Your task to perform on an android device: Open Youtube and go to "Your channel" Image 0: 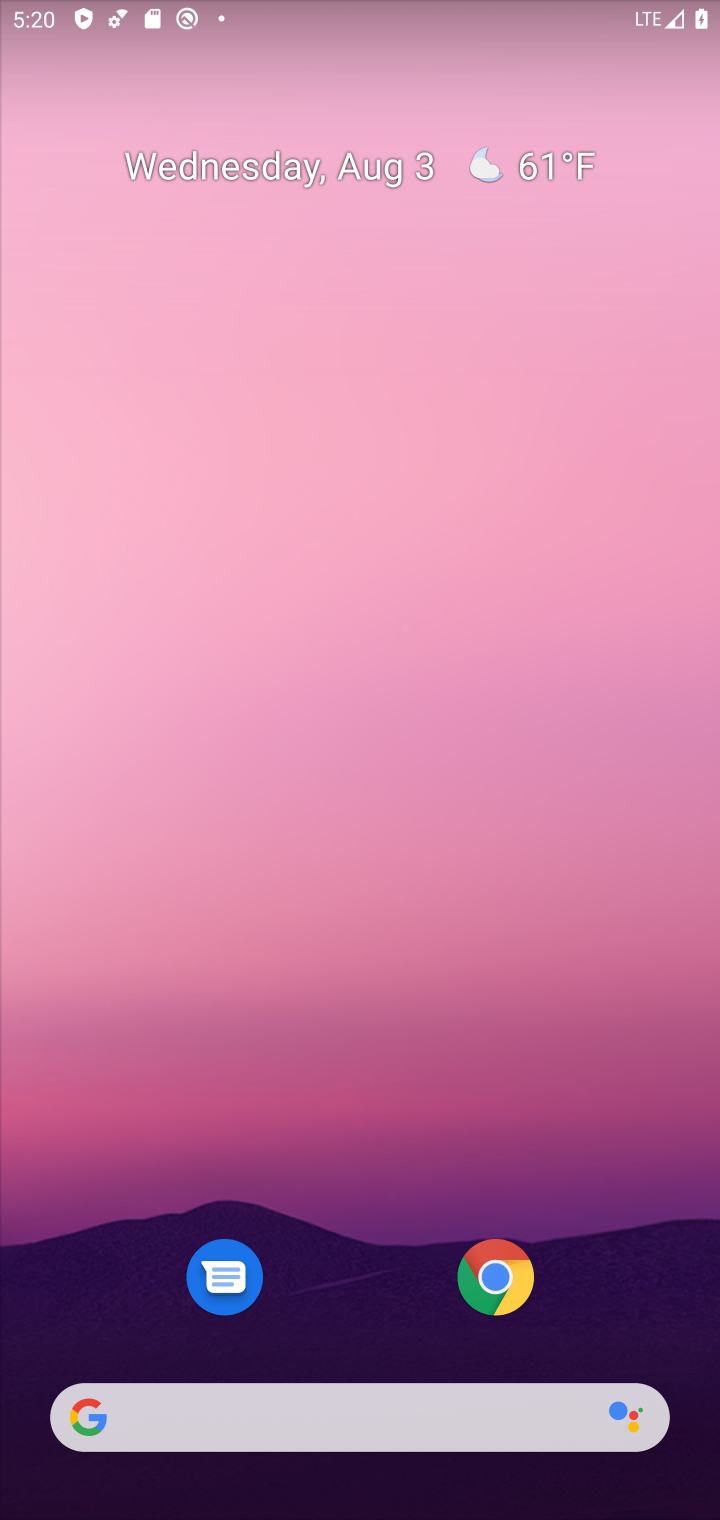
Step 0: drag from (383, 1017) to (499, 37)
Your task to perform on an android device: Open Youtube and go to "Your channel" Image 1: 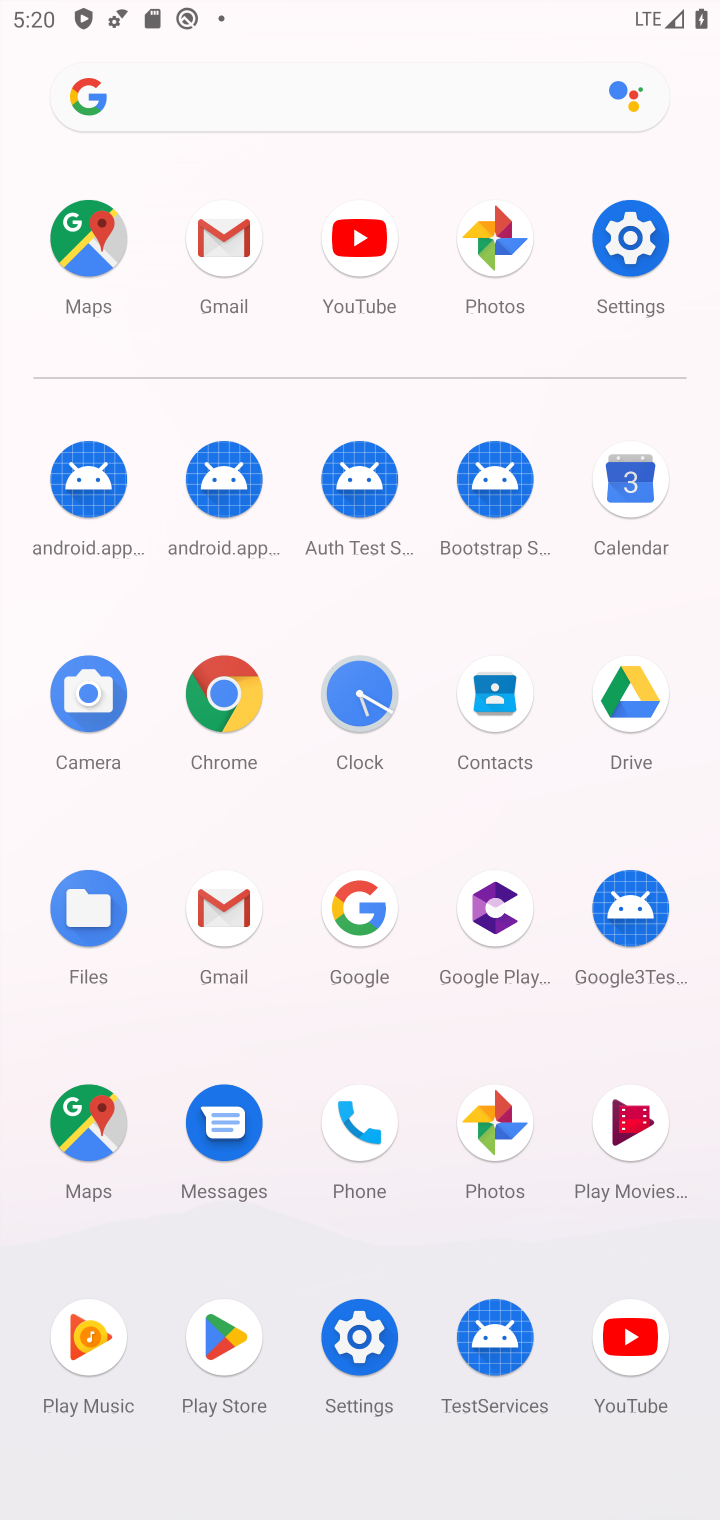
Step 1: click (621, 1352)
Your task to perform on an android device: Open Youtube and go to "Your channel" Image 2: 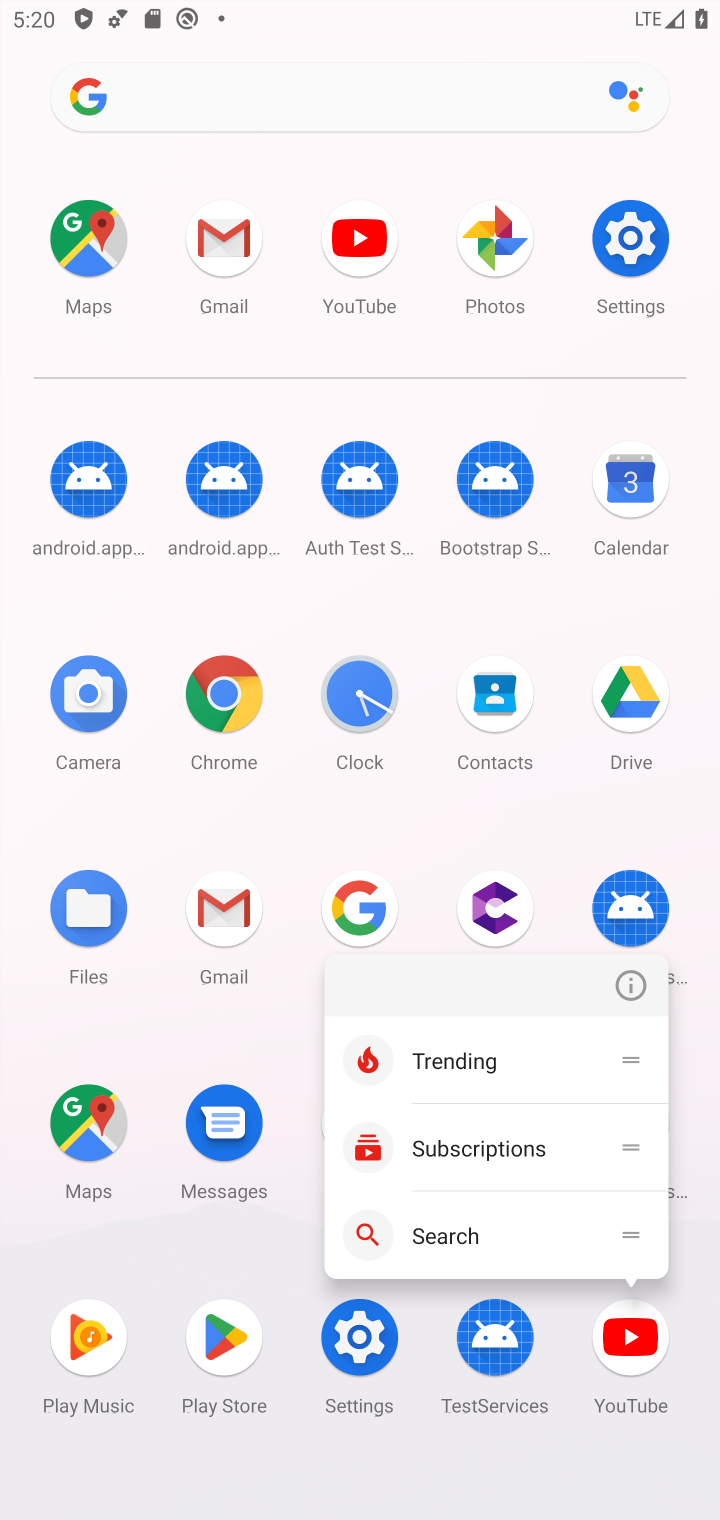
Step 2: click (627, 1354)
Your task to perform on an android device: Open Youtube and go to "Your channel" Image 3: 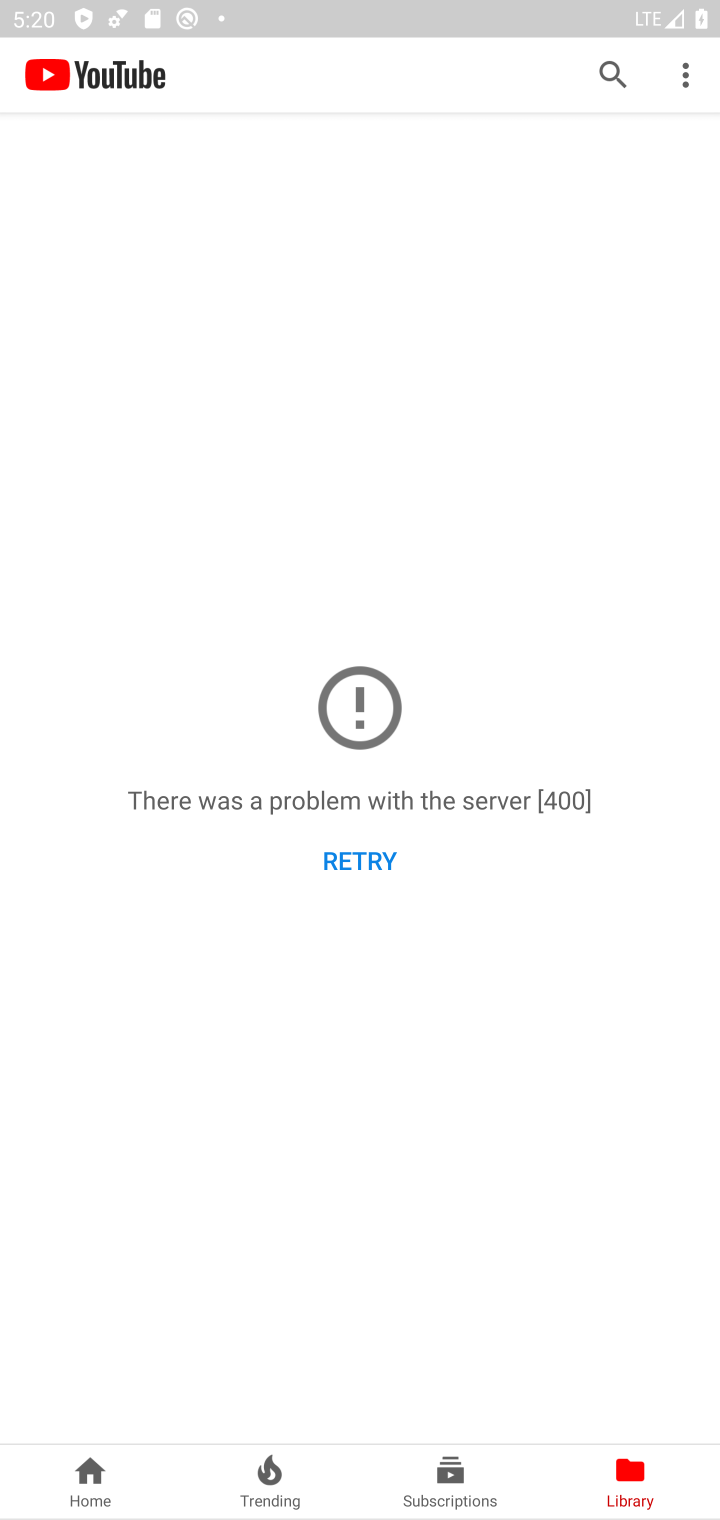
Step 3: task complete